Your task to perform on an android device: uninstall "Spotify" Image 0: 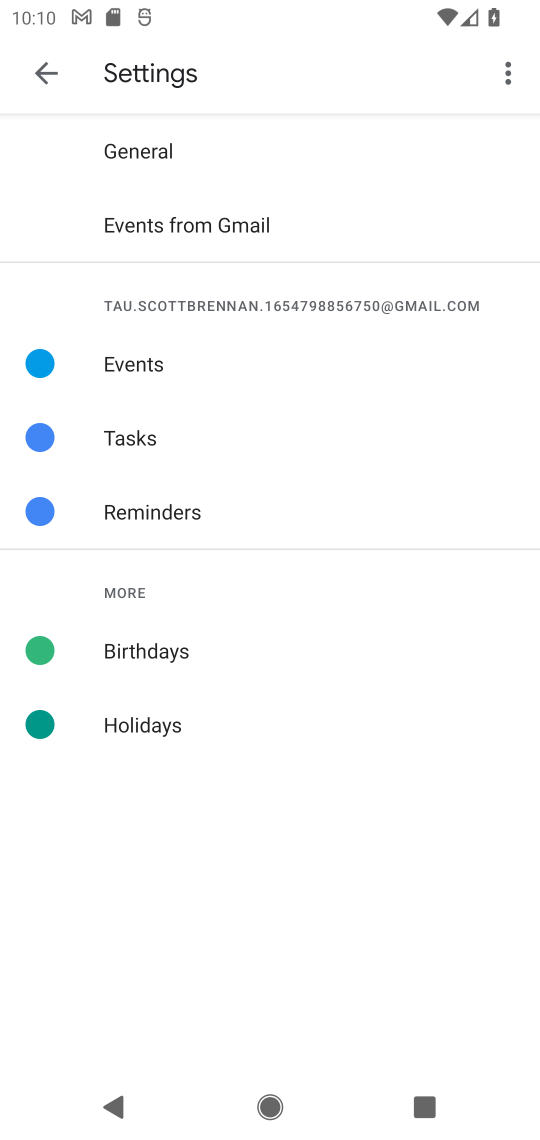
Step 0: press home button
Your task to perform on an android device: uninstall "Spotify" Image 1: 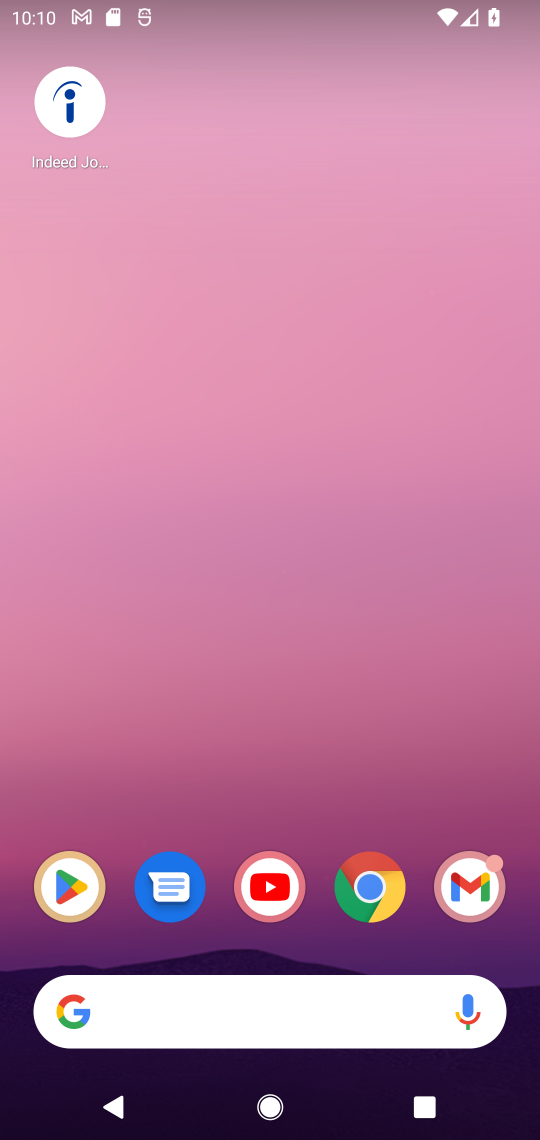
Step 1: drag from (290, 950) to (494, 646)
Your task to perform on an android device: uninstall "Spotify" Image 2: 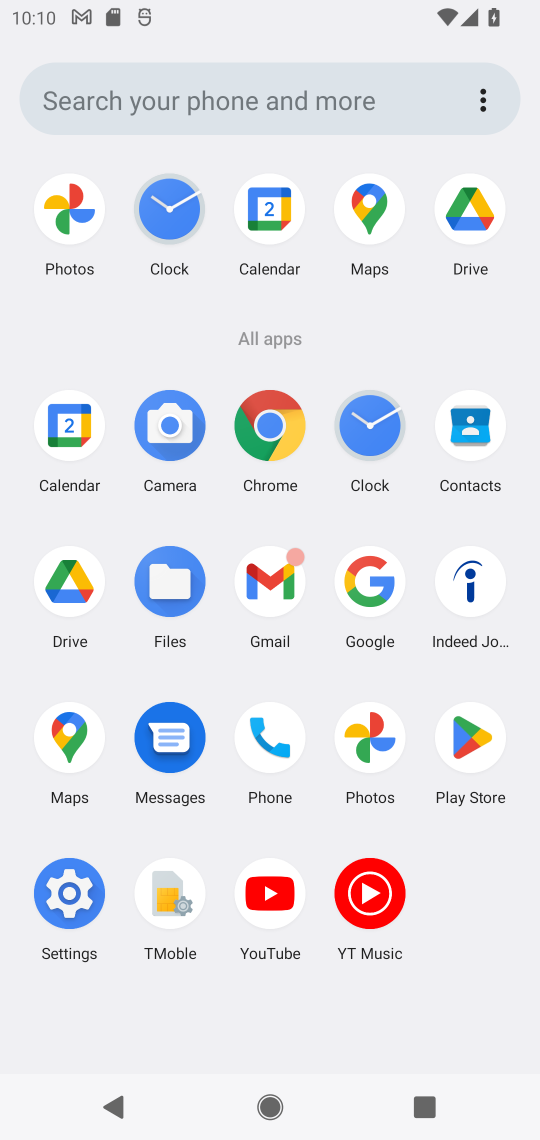
Step 2: click (469, 745)
Your task to perform on an android device: uninstall "Spotify" Image 3: 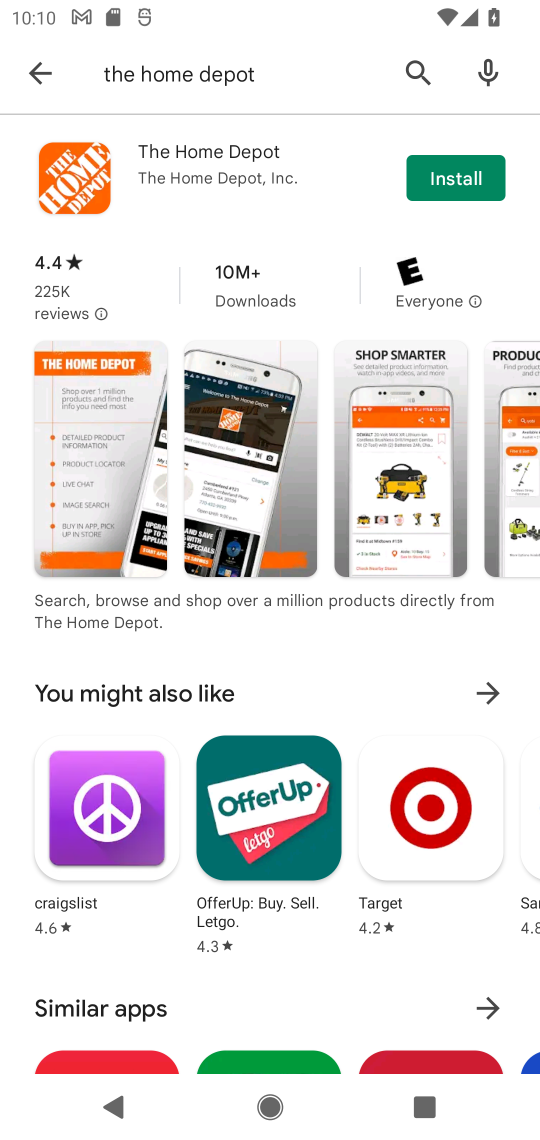
Step 3: click (34, 87)
Your task to perform on an android device: uninstall "Spotify" Image 4: 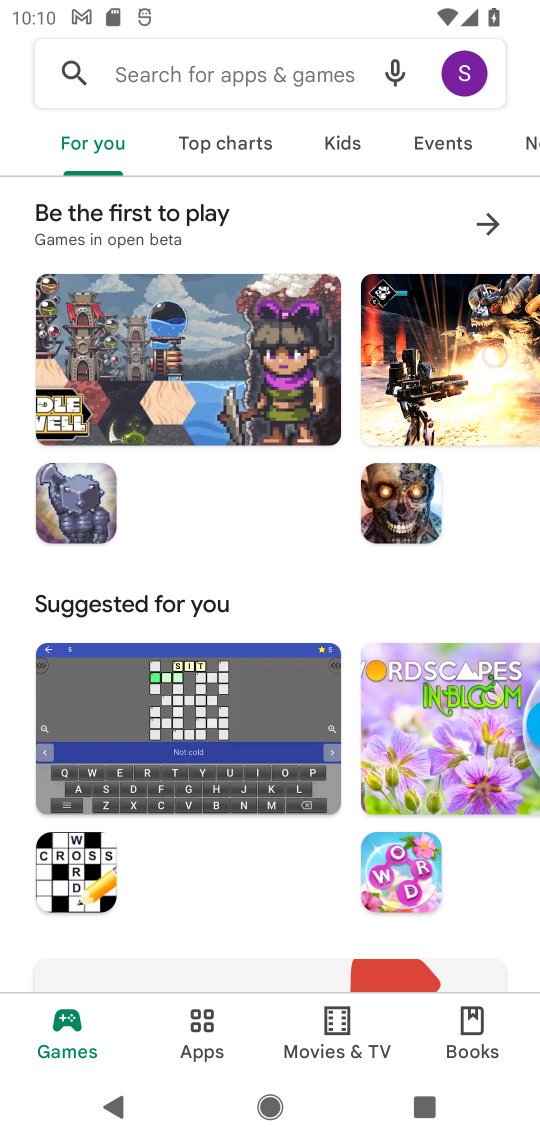
Step 4: click (123, 84)
Your task to perform on an android device: uninstall "Spotify" Image 5: 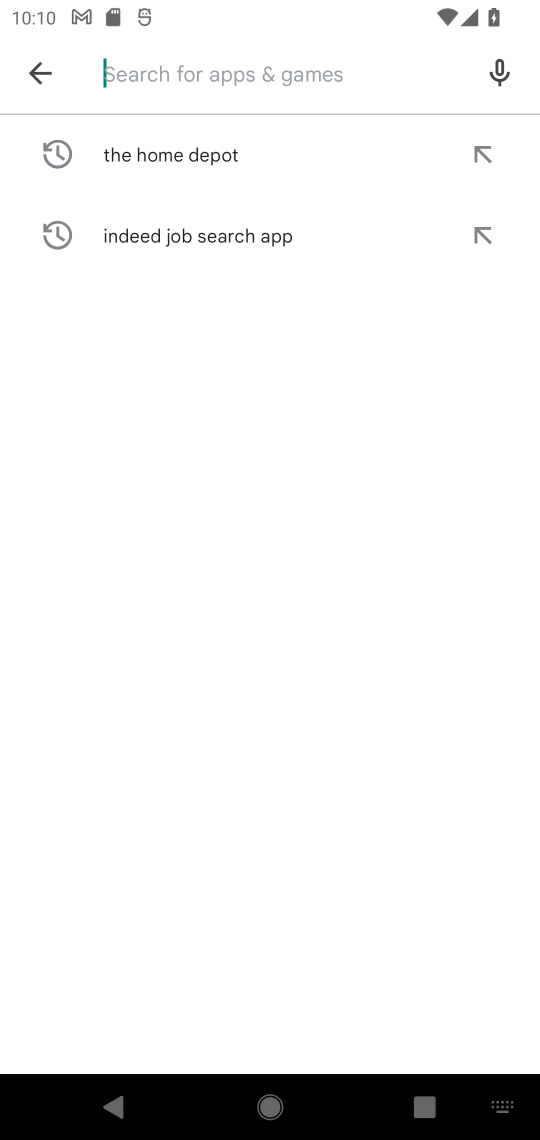
Step 5: type "Spotify"
Your task to perform on an android device: uninstall "Spotify" Image 6: 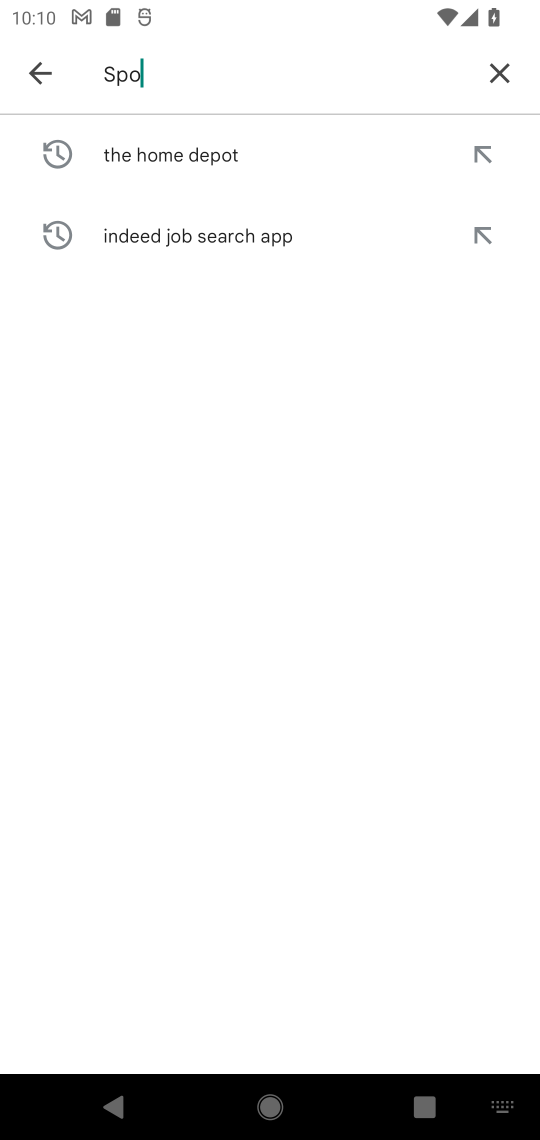
Step 6: type ""
Your task to perform on an android device: uninstall "Spotify" Image 7: 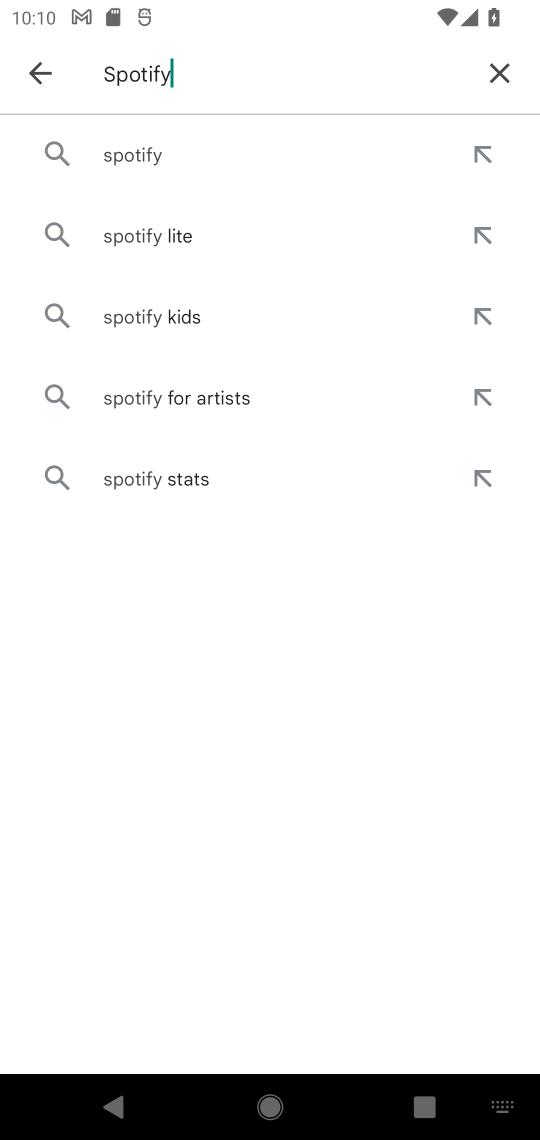
Step 7: click (103, 161)
Your task to perform on an android device: uninstall "Spotify" Image 8: 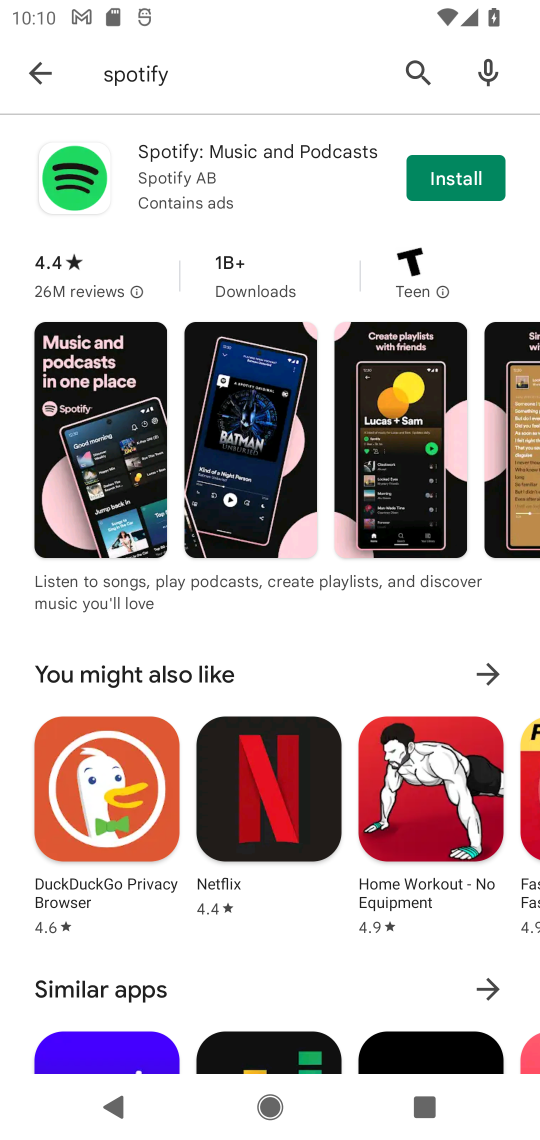
Step 8: click (115, 133)
Your task to perform on an android device: uninstall "Spotify" Image 9: 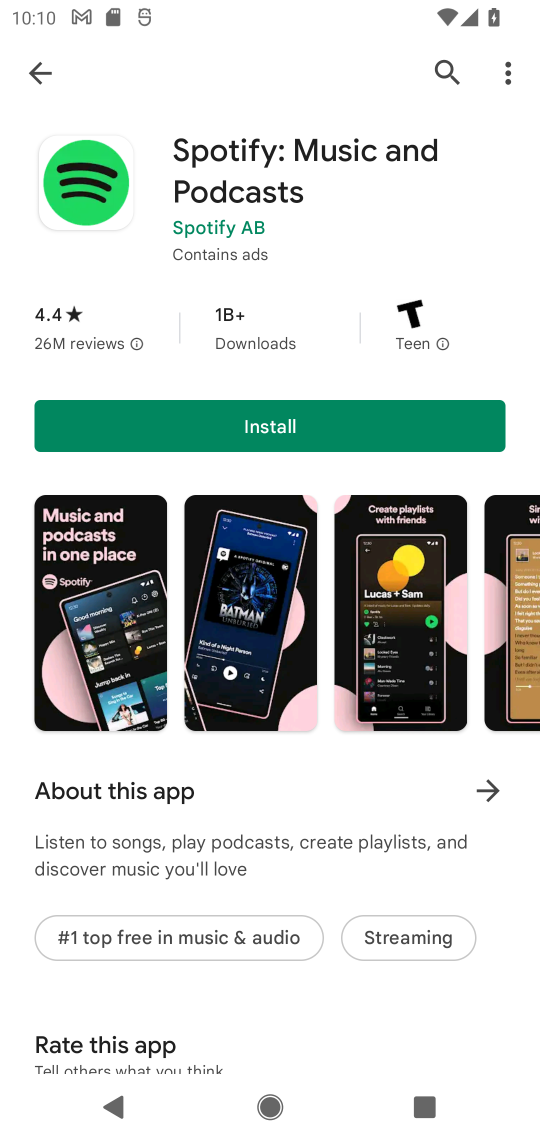
Step 9: task complete